Your task to perform on an android device: change notifications settings Image 0: 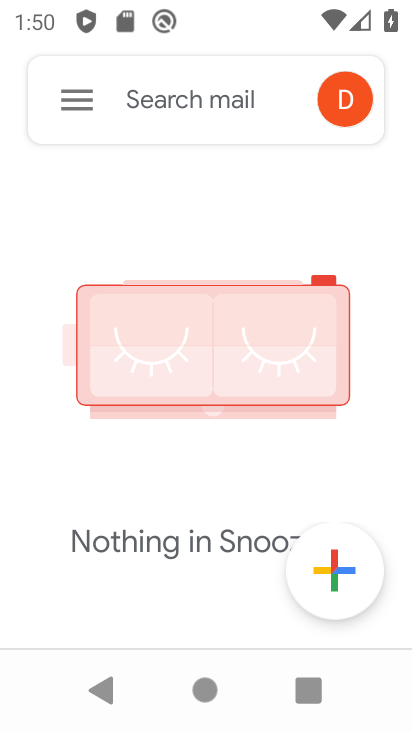
Step 0: press home button
Your task to perform on an android device: change notifications settings Image 1: 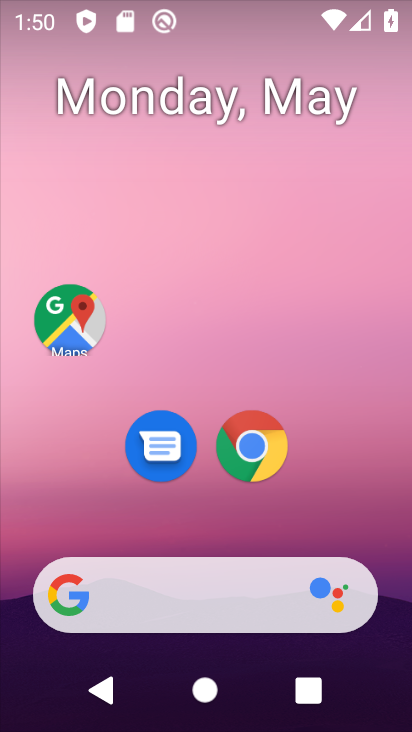
Step 1: drag from (340, 476) to (305, 191)
Your task to perform on an android device: change notifications settings Image 2: 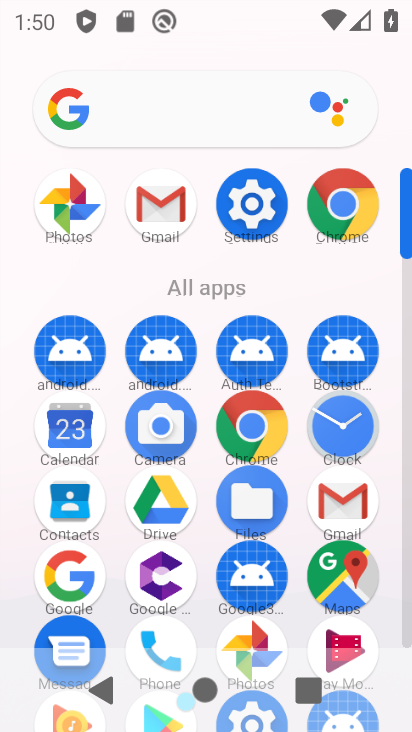
Step 2: click (280, 218)
Your task to perform on an android device: change notifications settings Image 3: 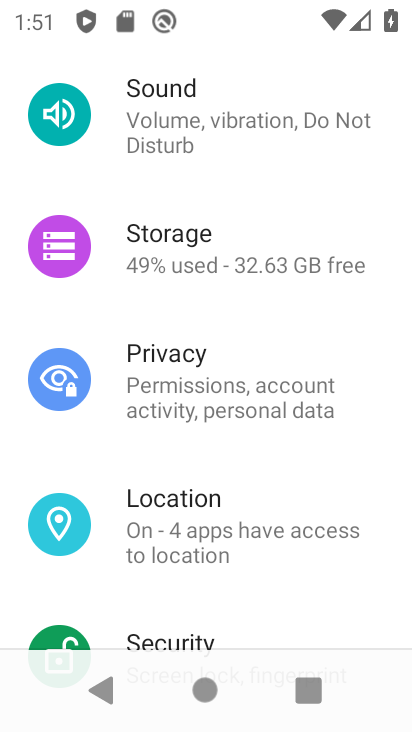
Step 3: drag from (293, 166) to (254, 577)
Your task to perform on an android device: change notifications settings Image 4: 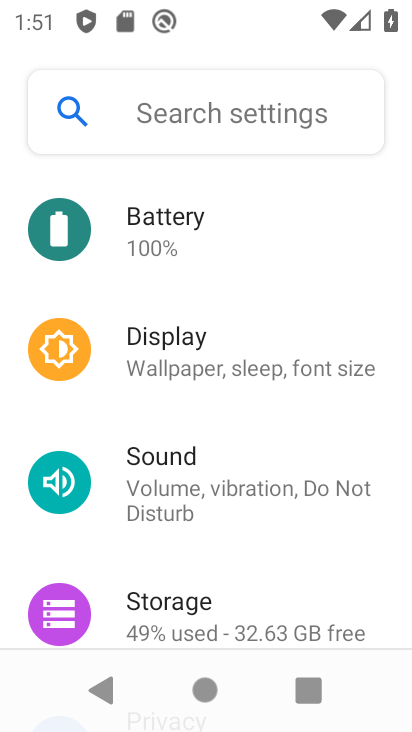
Step 4: drag from (240, 280) to (207, 566)
Your task to perform on an android device: change notifications settings Image 5: 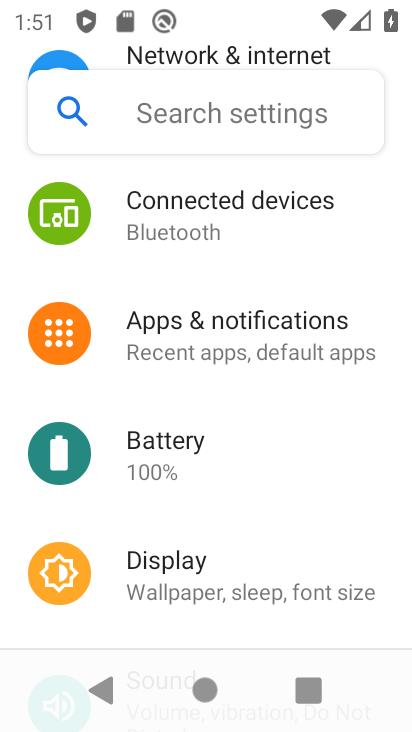
Step 5: click (221, 332)
Your task to perform on an android device: change notifications settings Image 6: 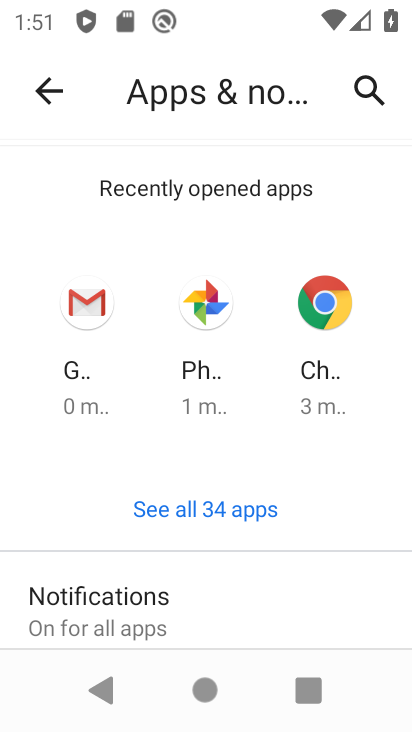
Step 6: click (144, 605)
Your task to perform on an android device: change notifications settings Image 7: 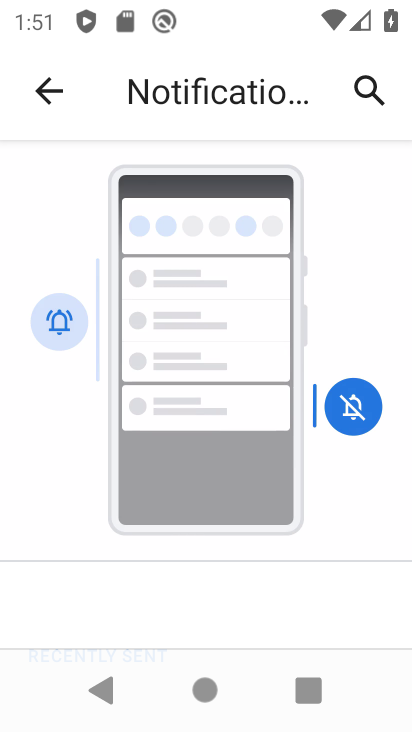
Step 7: drag from (171, 604) to (255, 233)
Your task to perform on an android device: change notifications settings Image 8: 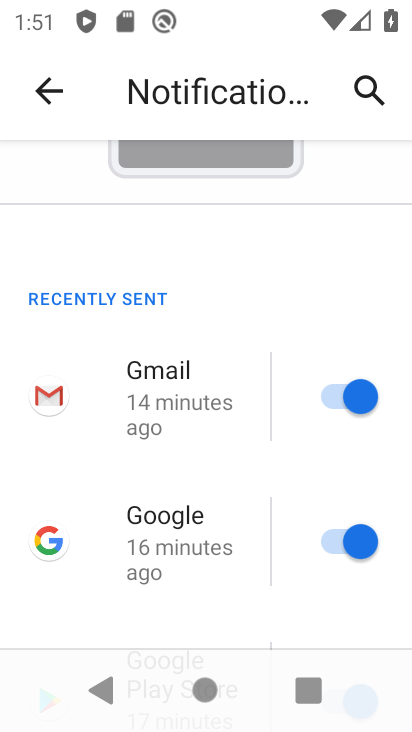
Step 8: drag from (190, 597) to (198, 282)
Your task to perform on an android device: change notifications settings Image 9: 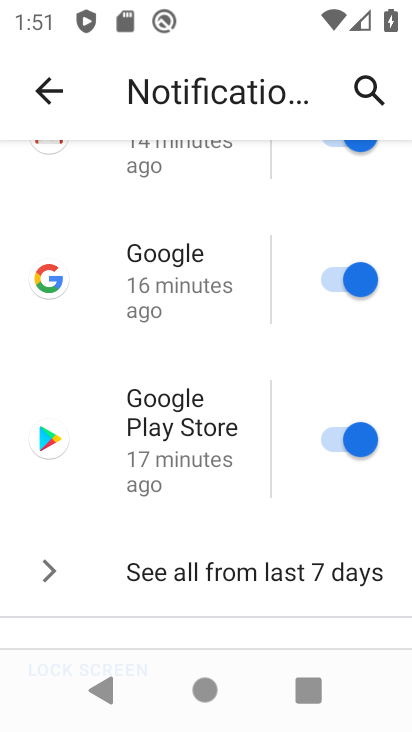
Step 9: drag from (196, 544) to (209, 277)
Your task to perform on an android device: change notifications settings Image 10: 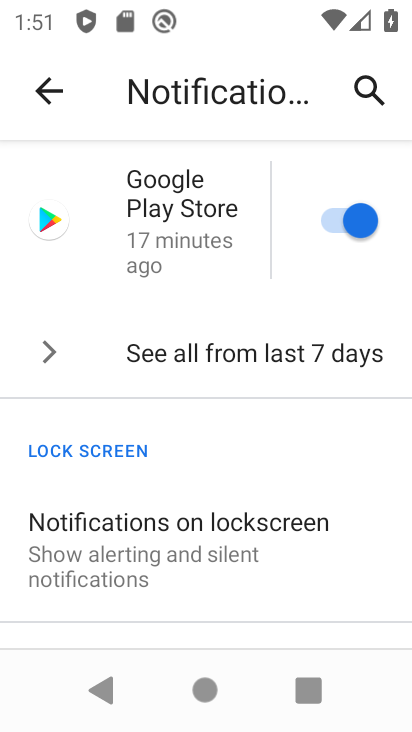
Step 10: click (200, 551)
Your task to perform on an android device: change notifications settings Image 11: 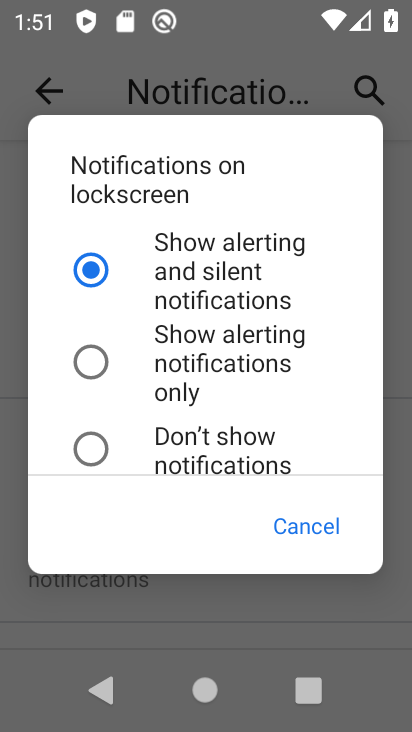
Step 11: click (84, 453)
Your task to perform on an android device: change notifications settings Image 12: 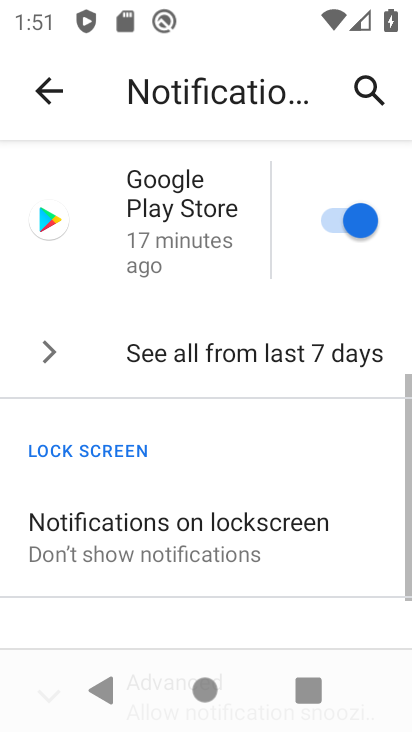
Step 12: task complete